Your task to perform on an android device: Add macbook pro to the cart on amazon.com Image 0: 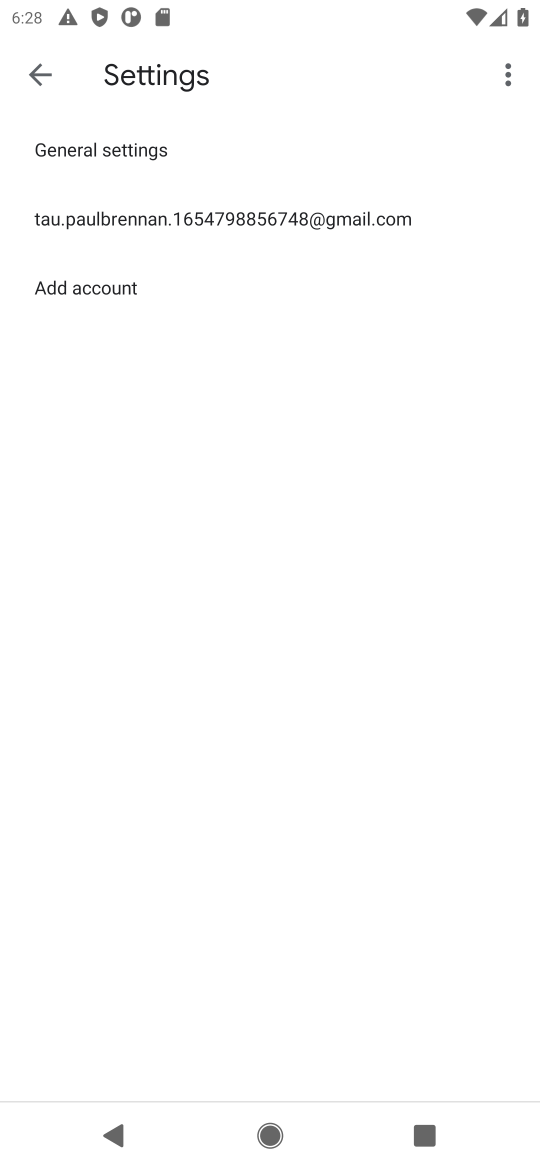
Step 0: press home button
Your task to perform on an android device: Add macbook pro to the cart on amazon.com Image 1: 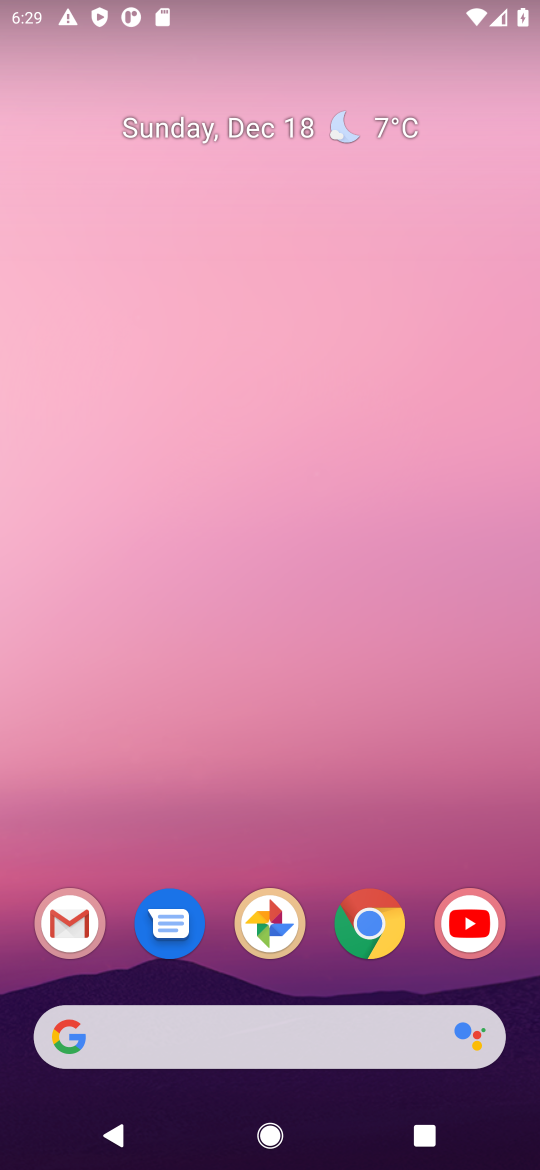
Step 1: task complete